Your task to perform on an android device: Open eBay Image 0: 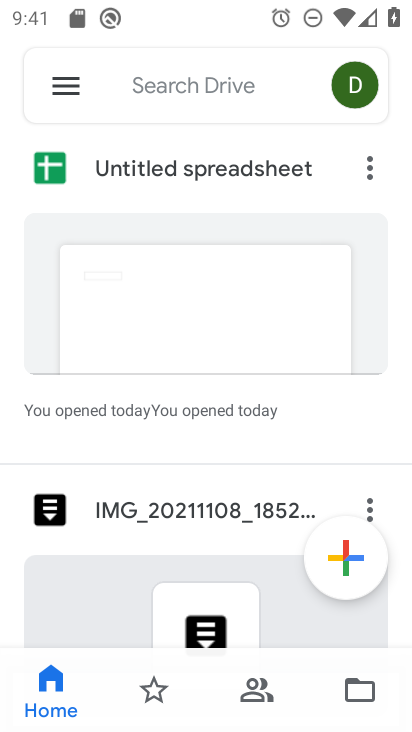
Step 0: press home button
Your task to perform on an android device: Open eBay Image 1: 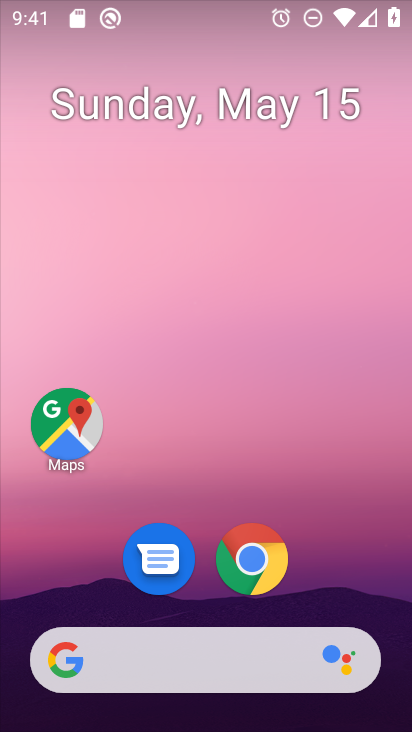
Step 1: click (270, 554)
Your task to perform on an android device: Open eBay Image 2: 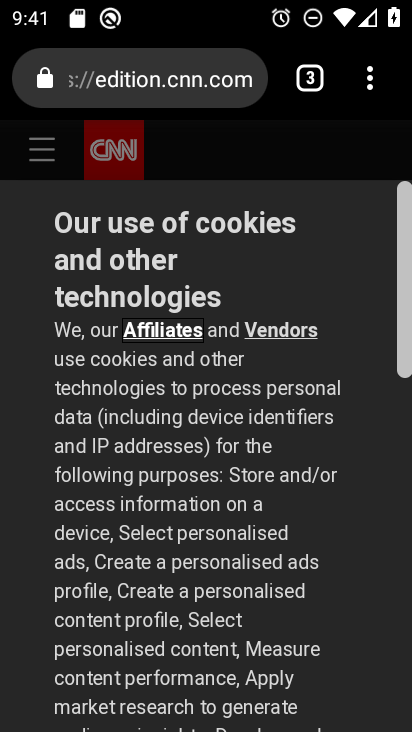
Step 2: click (238, 97)
Your task to perform on an android device: Open eBay Image 3: 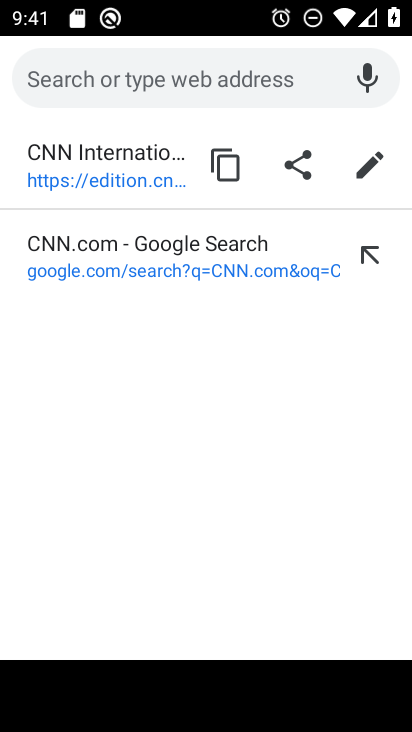
Step 3: type "ebay.com"
Your task to perform on an android device: Open eBay Image 4: 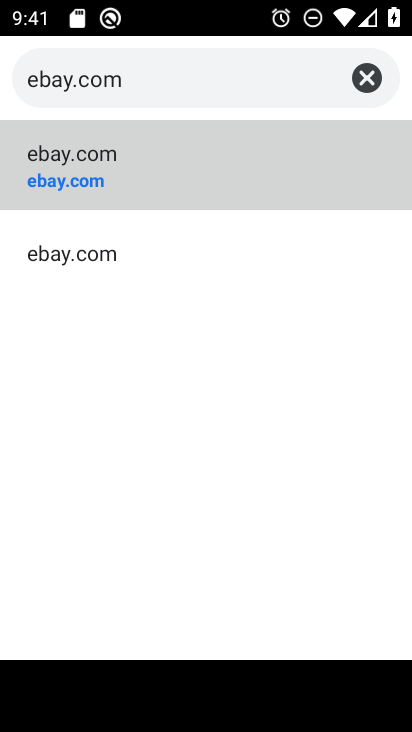
Step 4: click (137, 150)
Your task to perform on an android device: Open eBay Image 5: 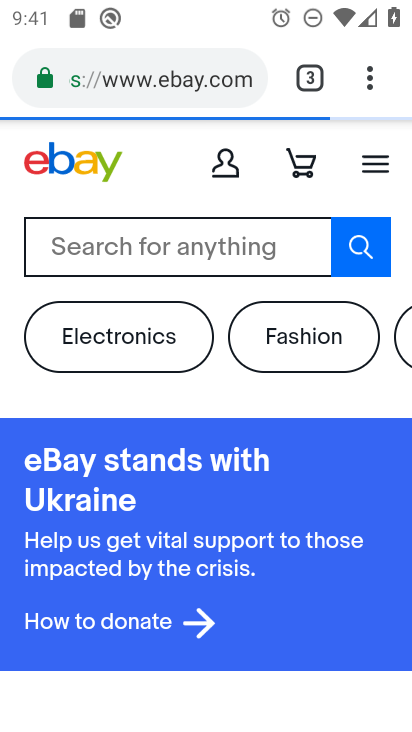
Step 5: task complete